Your task to perform on an android device: Check the news Image 0: 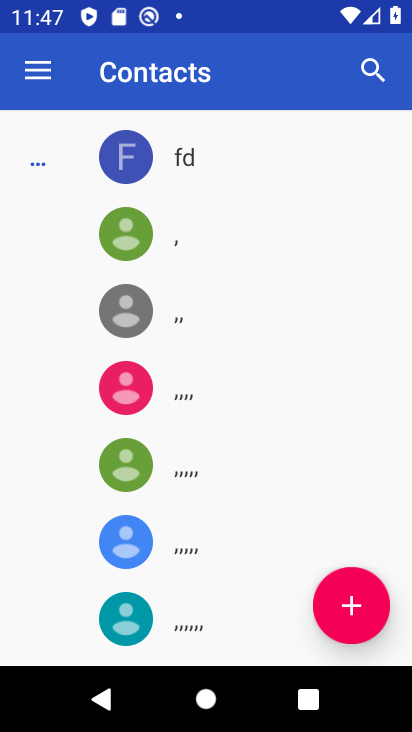
Step 0: press home button
Your task to perform on an android device: Check the news Image 1: 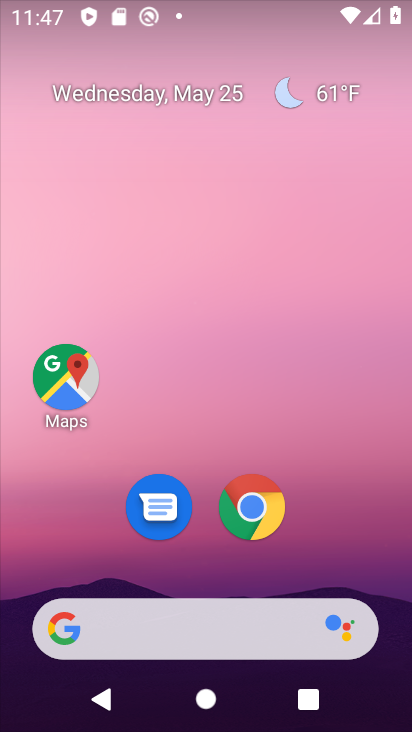
Step 1: click (203, 619)
Your task to perform on an android device: Check the news Image 2: 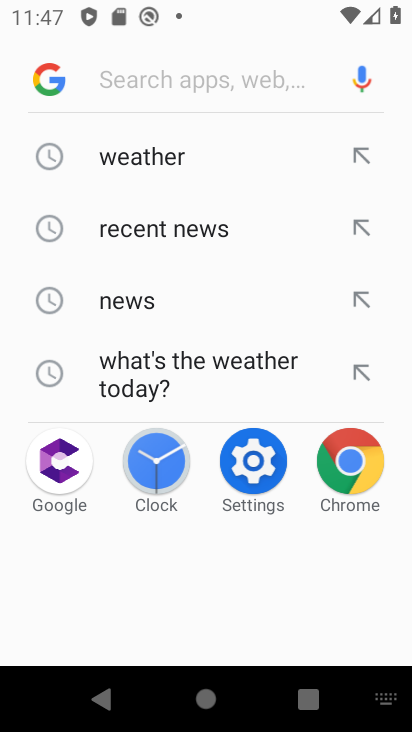
Step 2: click (179, 234)
Your task to perform on an android device: Check the news Image 3: 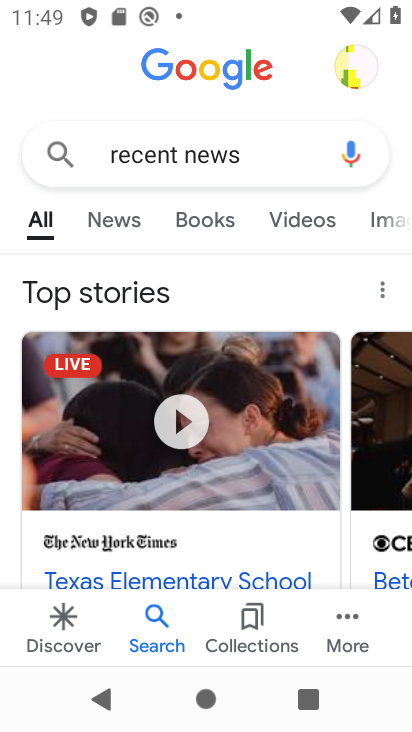
Step 3: task complete